Your task to perform on an android device: change timer sound Image 0: 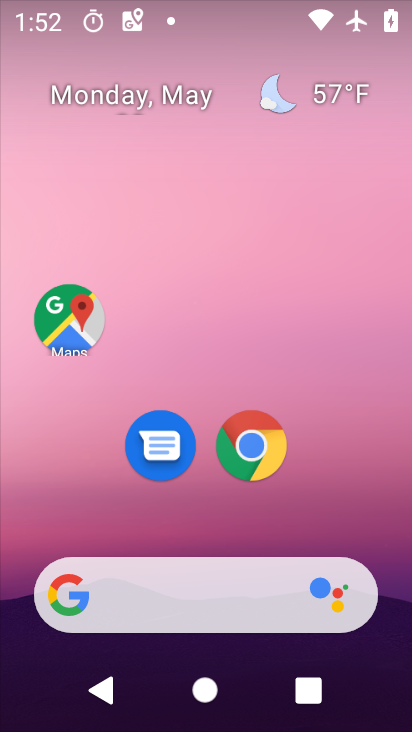
Step 0: drag from (215, 507) to (229, 0)
Your task to perform on an android device: change timer sound Image 1: 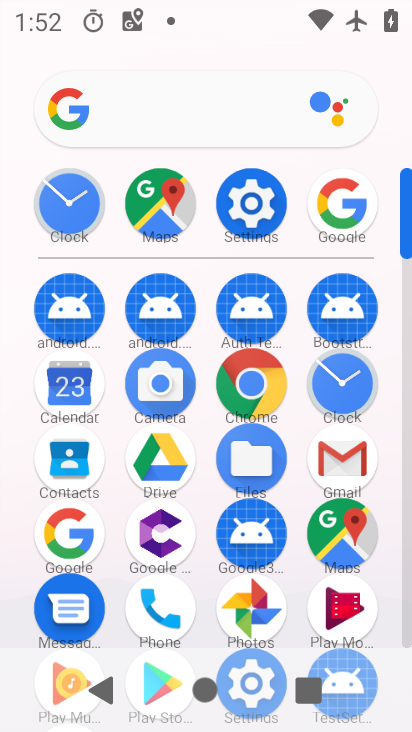
Step 1: click (339, 374)
Your task to perform on an android device: change timer sound Image 2: 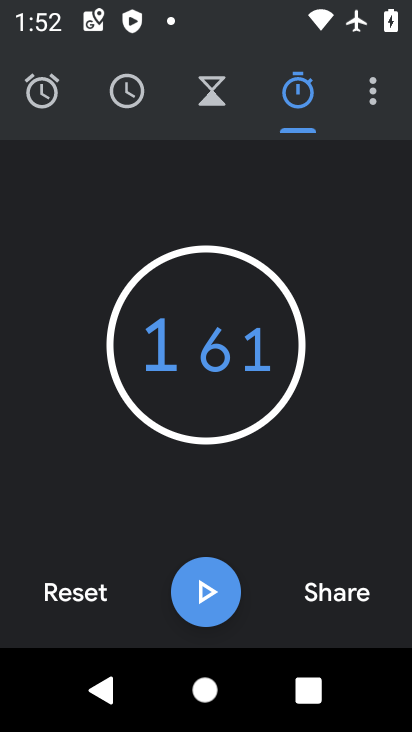
Step 2: click (358, 97)
Your task to perform on an android device: change timer sound Image 3: 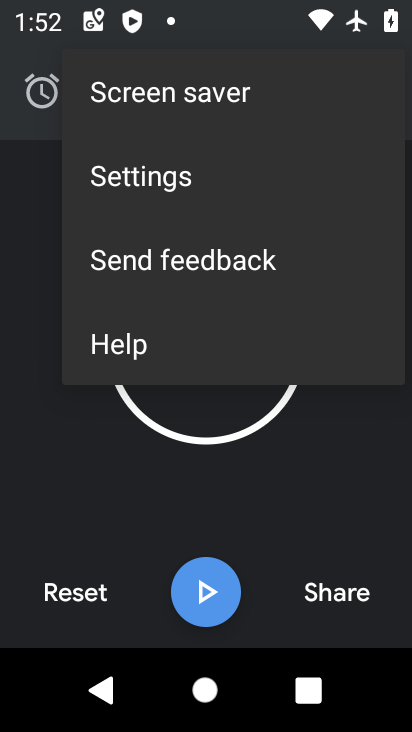
Step 3: drag from (363, 96) to (59, 115)
Your task to perform on an android device: change timer sound Image 4: 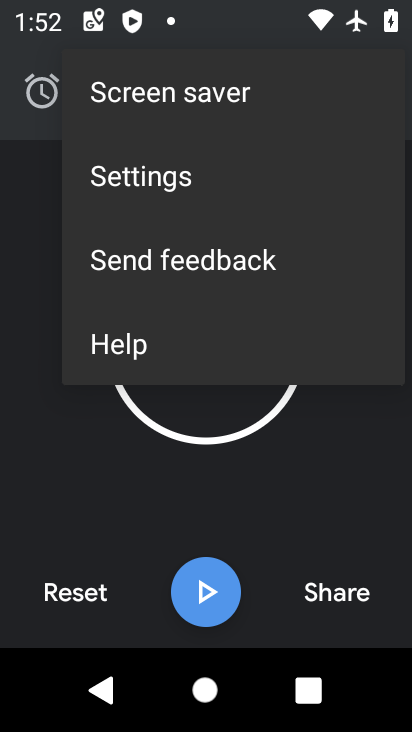
Step 4: click (187, 160)
Your task to perform on an android device: change timer sound Image 5: 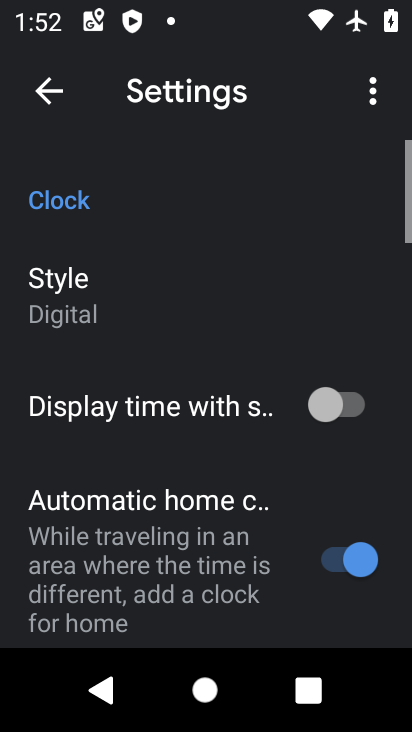
Step 5: drag from (249, 498) to (273, 78)
Your task to perform on an android device: change timer sound Image 6: 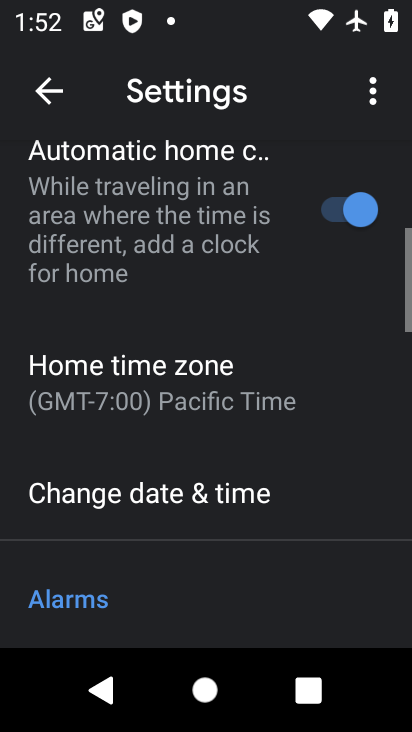
Step 6: drag from (213, 513) to (238, 93)
Your task to perform on an android device: change timer sound Image 7: 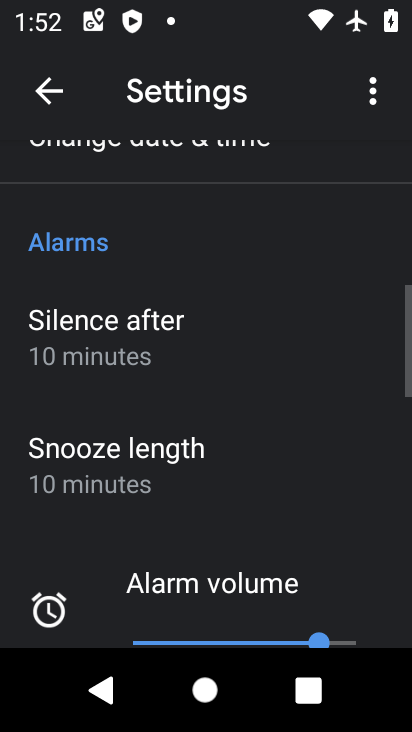
Step 7: drag from (213, 582) to (206, 179)
Your task to perform on an android device: change timer sound Image 8: 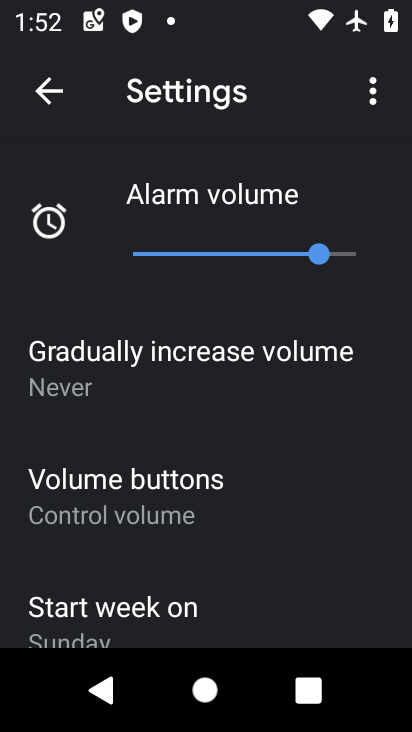
Step 8: drag from (235, 587) to (227, 209)
Your task to perform on an android device: change timer sound Image 9: 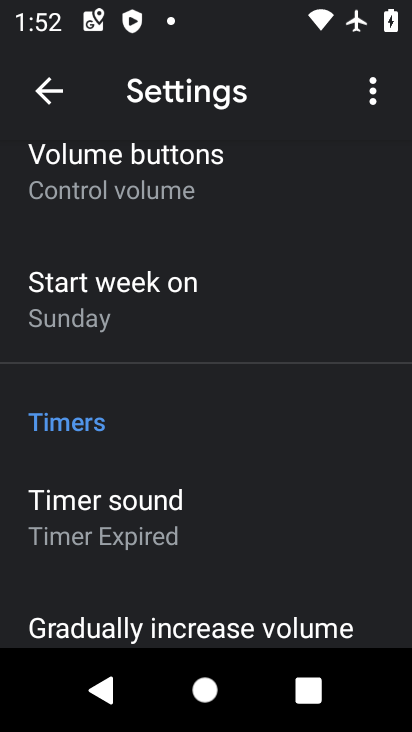
Step 9: click (164, 530)
Your task to perform on an android device: change timer sound Image 10: 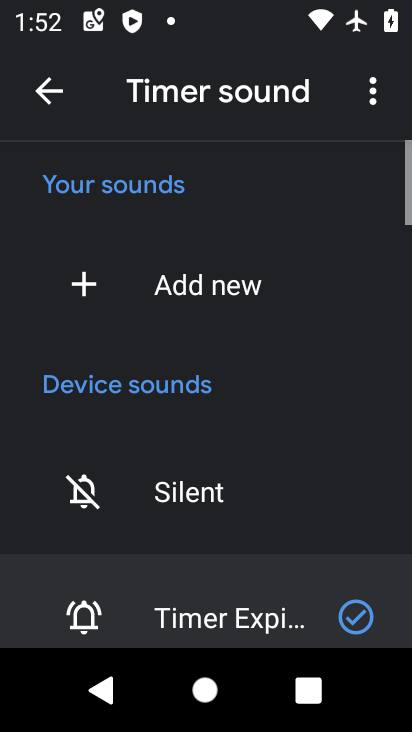
Step 10: click (171, 492)
Your task to perform on an android device: change timer sound Image 11: 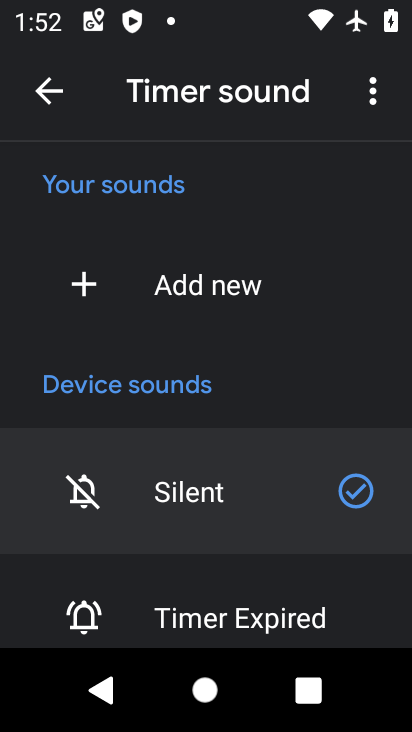
Step 11: task complete